Your task to perform on an android device: Do I have any events today? Image 0: 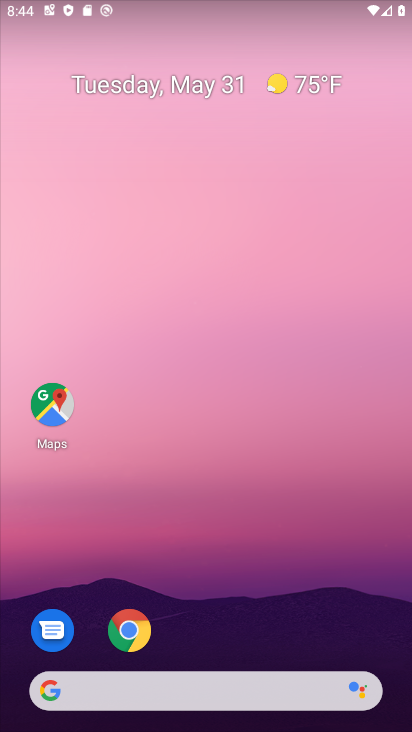
Step 0: drag from (200, 686) to (288, 196)
Your task to perform on an android device: Do I have any events today? Image 1: 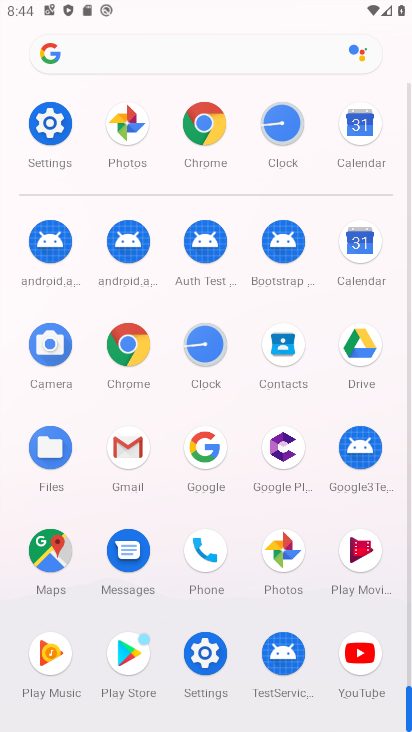
Step 1: click (373, 260)
Your task to perform on an android device: Do I have any events today? Image 2: 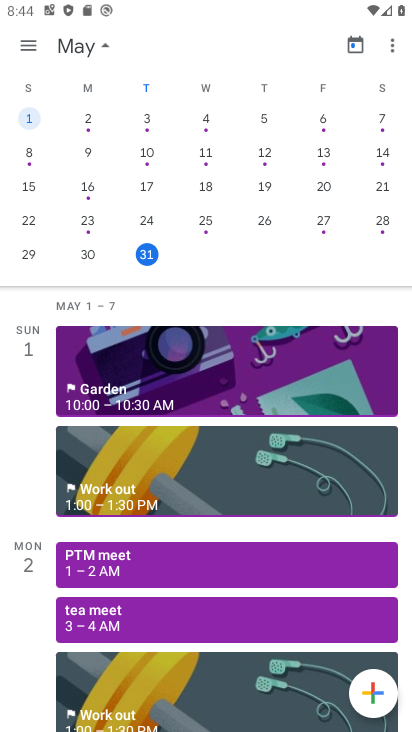
Step 2: task complete